Your task to perform on an android device: Open battery settings Image 0: 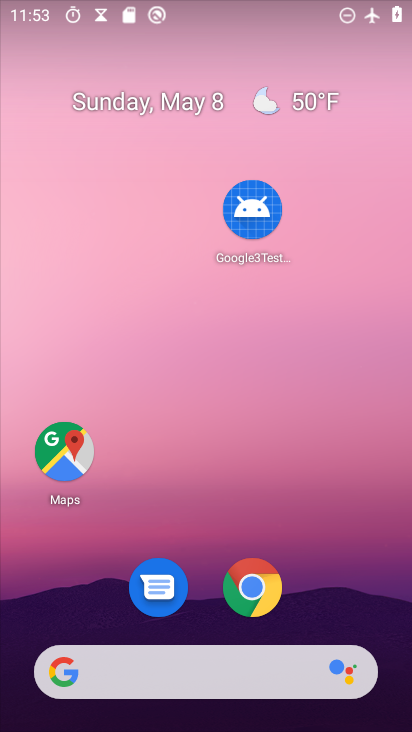
Step 0: drag from (283, 506) to (123, 93)
Your task to perform on an android device: Open battery settings Image 1: 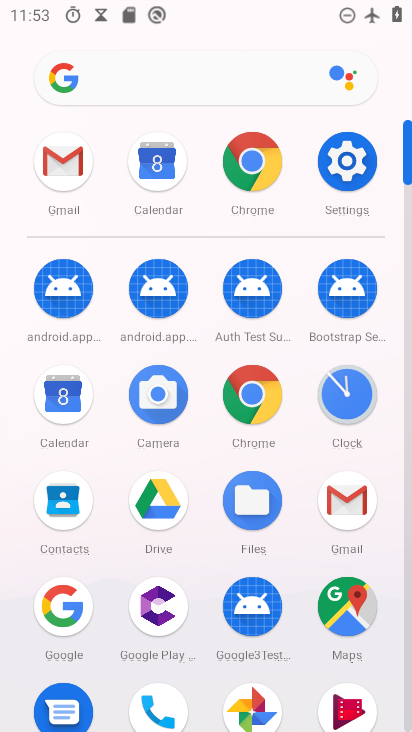
Step 1: click (346, 158)
Your task to perform on an android device: Open battery settings Image 2: 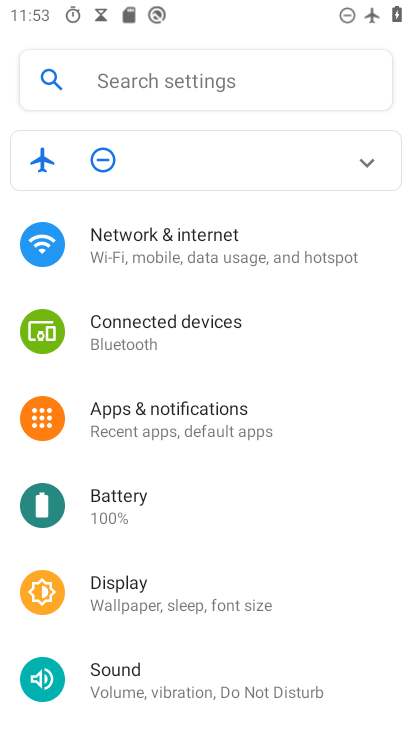
Step 2: click (109, 521)
Your task to perform on an android device: Open battery settings Image 3: 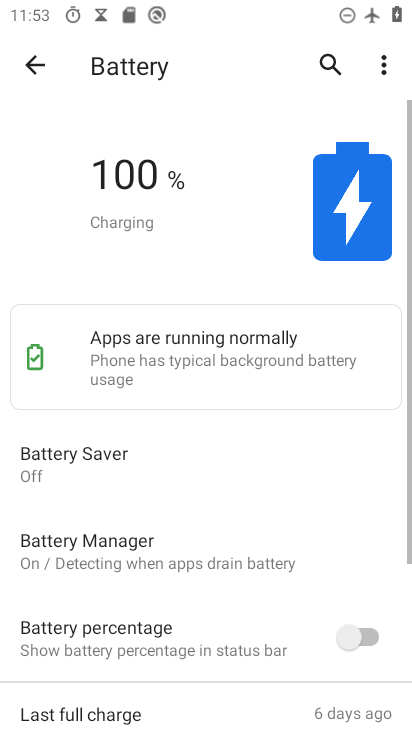
Step 3: task complete